Your task to perform on an android device: set the stopwatch Image 0: 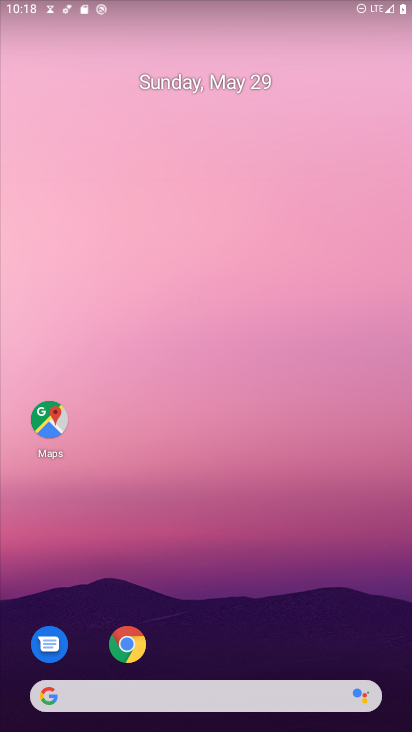
Step 0: drag from (163, 719) to (214, 56)
Your task to perform on an android device: set the stopwatch Image 1: 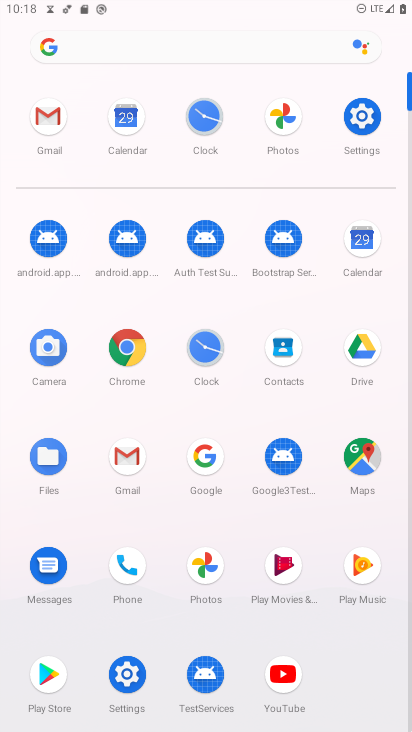
Step 1: click (199, 117)
Your task to perform on an android device: set the stopwatch Image 2: 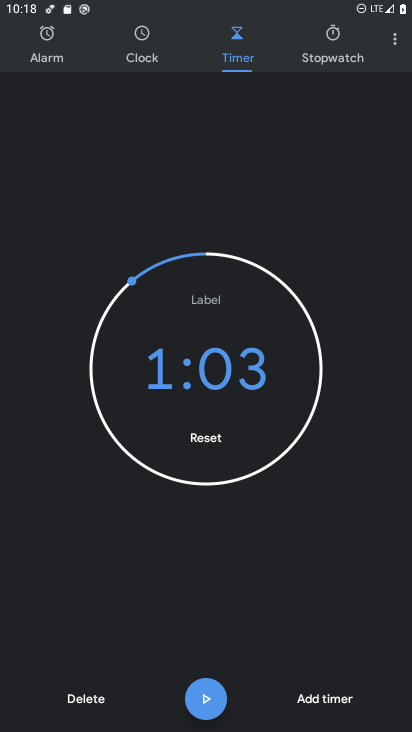
Step 2: click (346, 55)
Your task to perform on an android device: set the stopwatch Image 3: 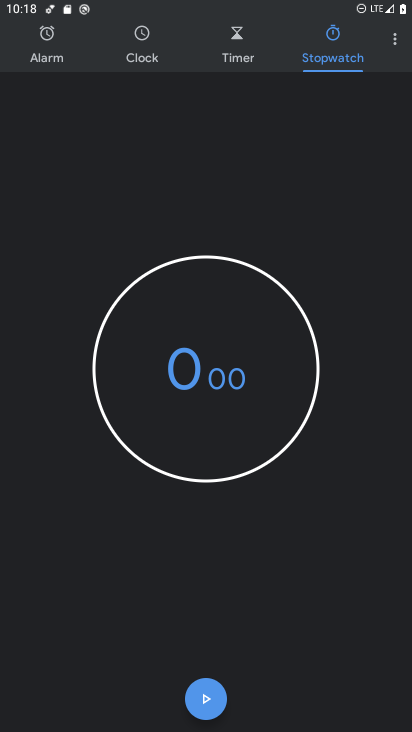
Step 3: click (205, 708)
Your task to perform on an android device: set the stopwatch Image 4: 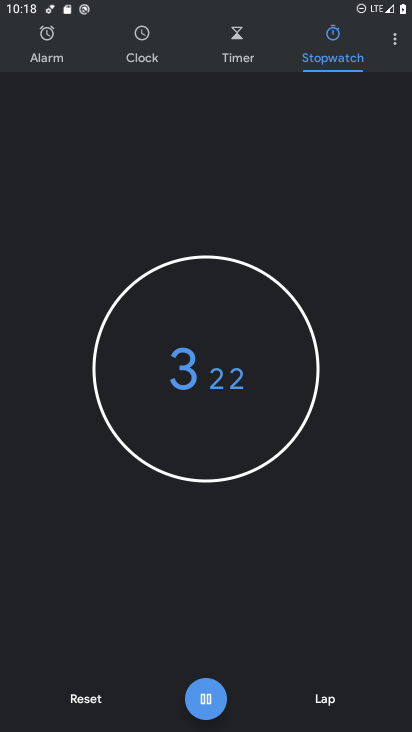
Step 4: click (205, 708)
Your task to perform on an android device: set the stopwatch Image 5: 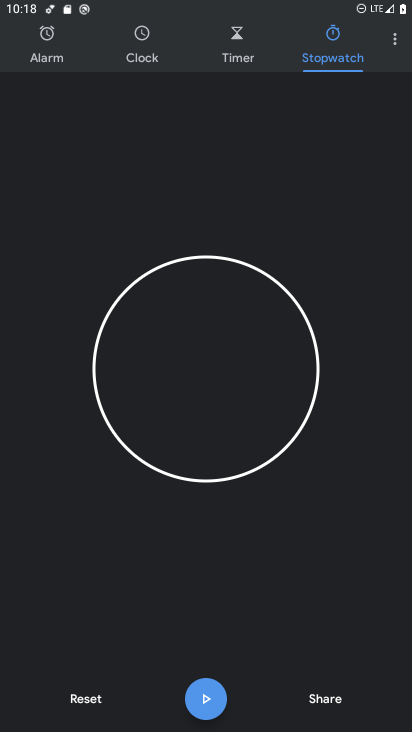
Step 5: task complete